Your task to perform on an android device: turn on the 24-hour format for clock Image 0: 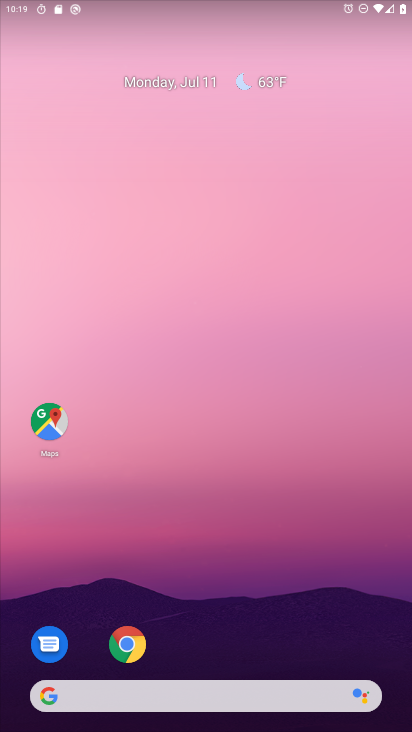
Step 0: drag from (311, 596) to (341, 88)
Your task to perform on an android device: turn on the 24-hour format for clock Image 1: 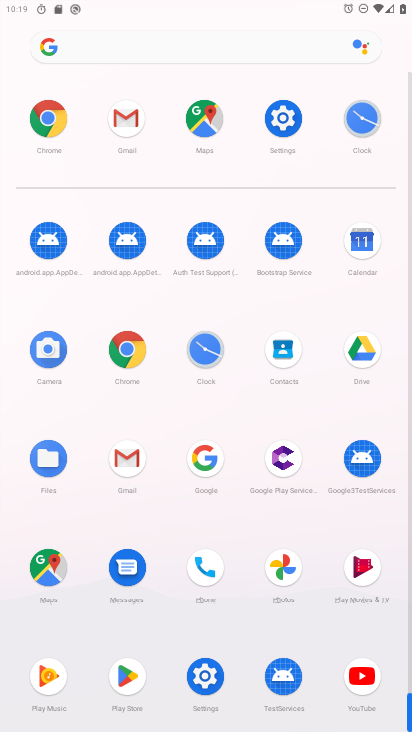
Step 1: click (206, 344)
Your task to perform on an android device: turn on the 24-hour format for clock Image 2: 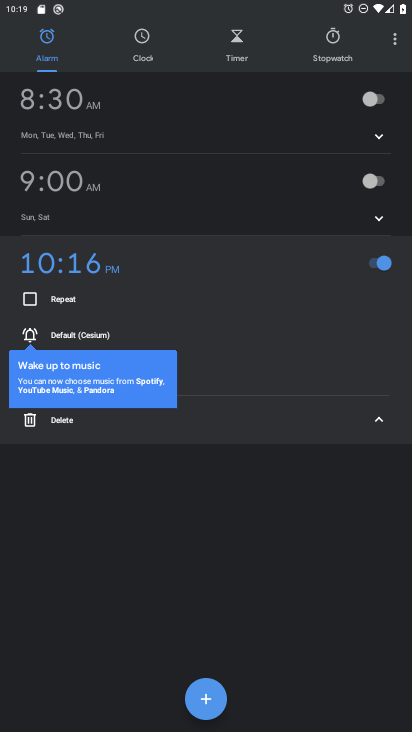
Step 2: click (396, 42)
Your task to perform on an android device: turn on the 24-hour format for clock Image 3: 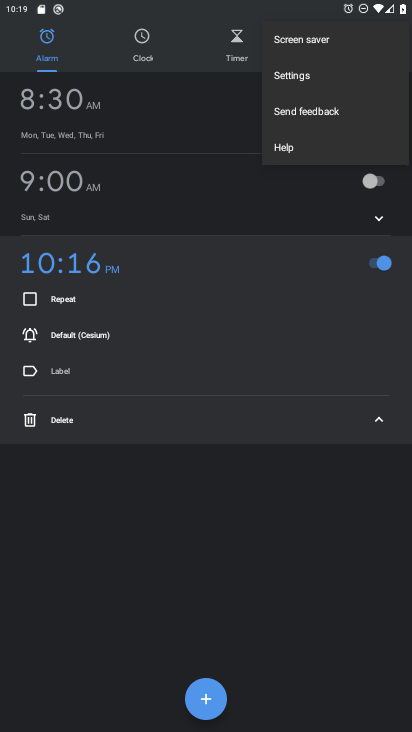
Step 3: click (307, 71)
Your task to perform on an android device: turn on the 24-hour format for clock Image 4: 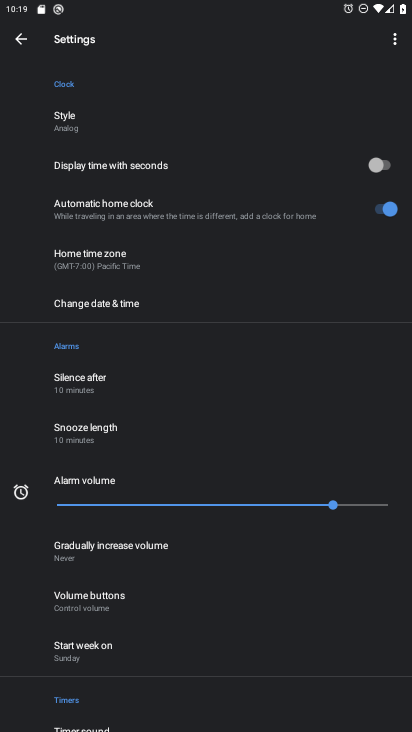
Step 4: click (146, 303)
Your task to perform on an android device: turn on the 24-hour format for clock Image 5: 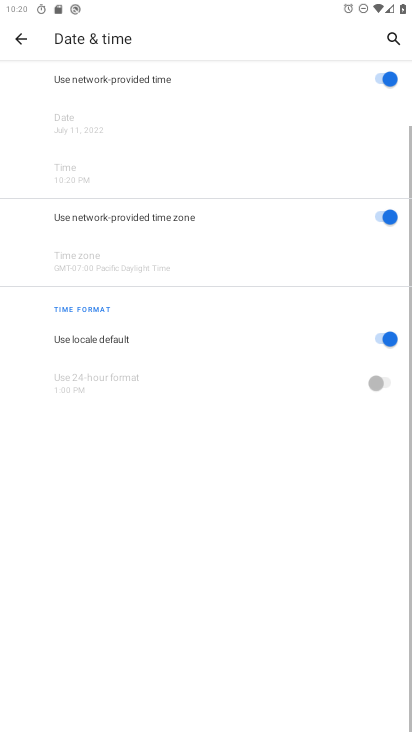
Step 5: click (399, 340)
Your task to perform on an android device: turn on the 24-hour format for clock Image 6: 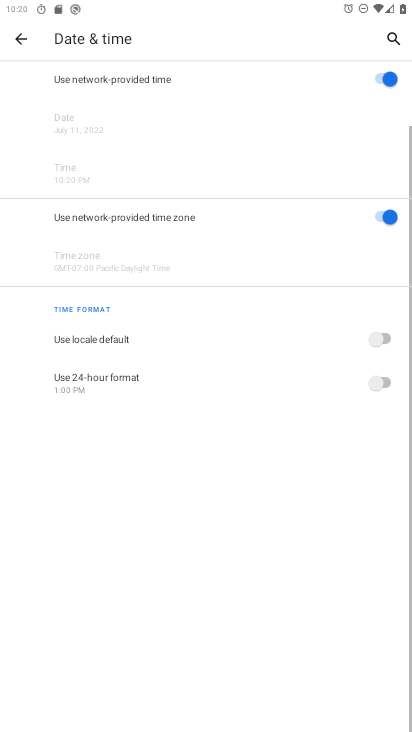
Step 6: click (378, 386)
Your task to perform on an android device: turn on the 24-hour format for clock Image 7: 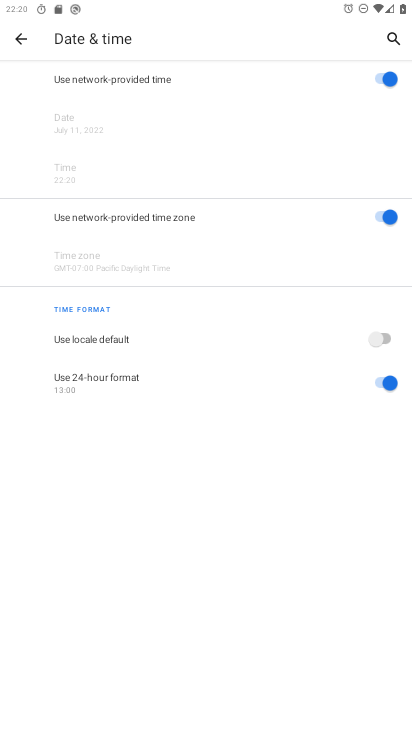
Step 7: task complete